Your task to perform on an android device: check the backup settings in the google photos Image 0: 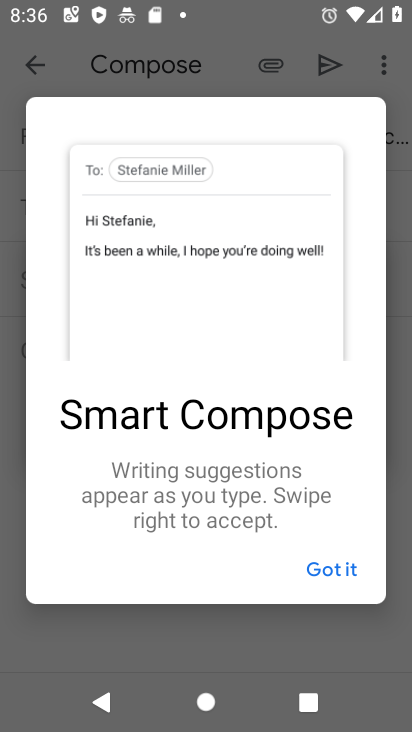
Step 0: press home button
Your task to perform on an android device: check the backup settings in the google photos Image 1: 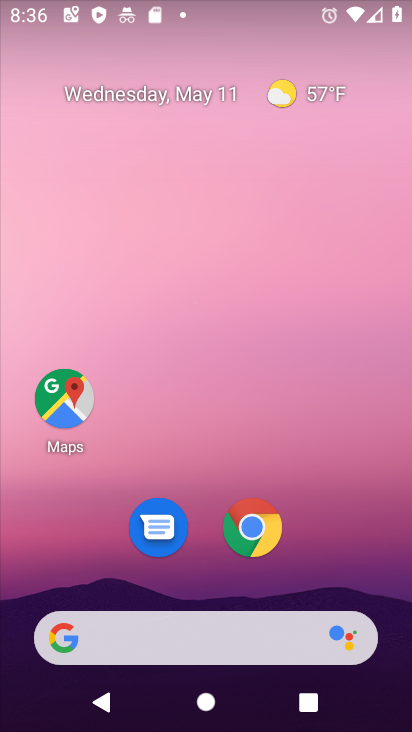
Step 1: drag from (361, 609) to (366, 11)
Your task to perform on an android device: check the backup settings in the google photos Image 2: 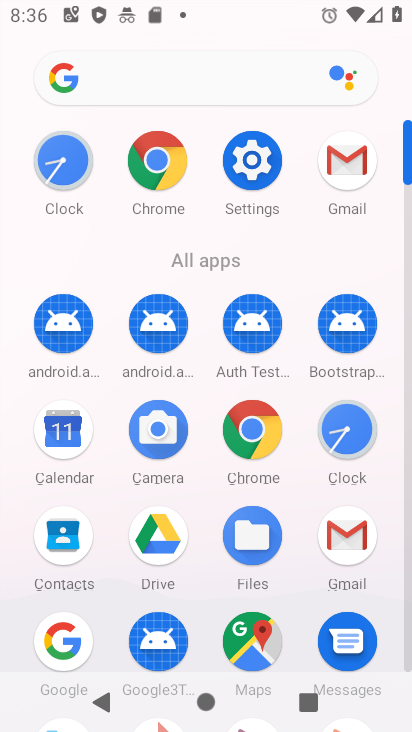
Step 2: drag from (408, 512) to (409, 419)
Your task to perform on an android device: check the backup settings in the google photos Image 3: 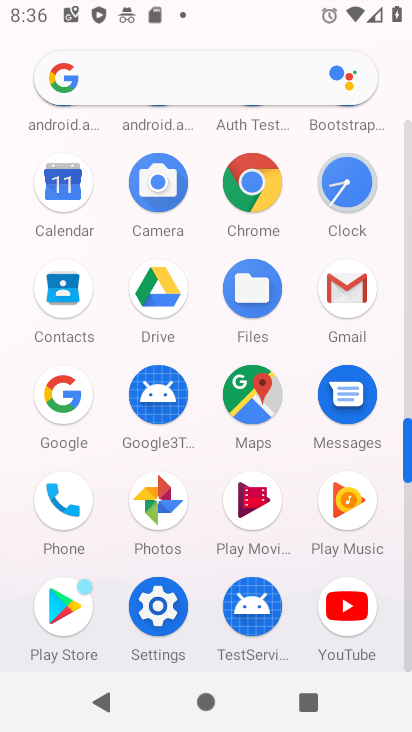
Step 3: click (172, 507)
Your task to perform on an android device: check the backup settings in the google photos Image 4: 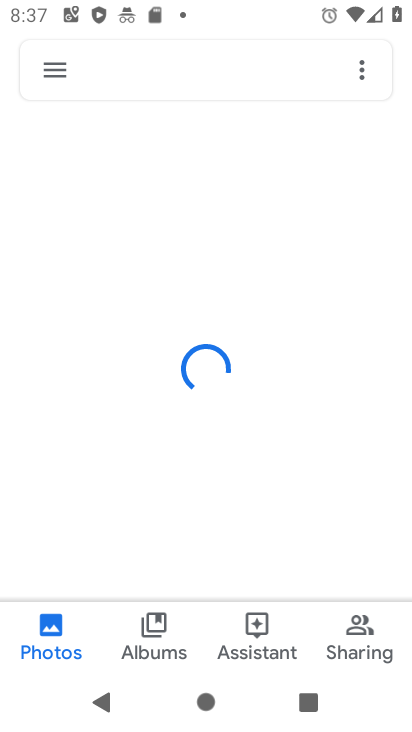
Step 4: click (54, 59)
Your task to perform on an android device: check the backup settings in the google photos Image 5: 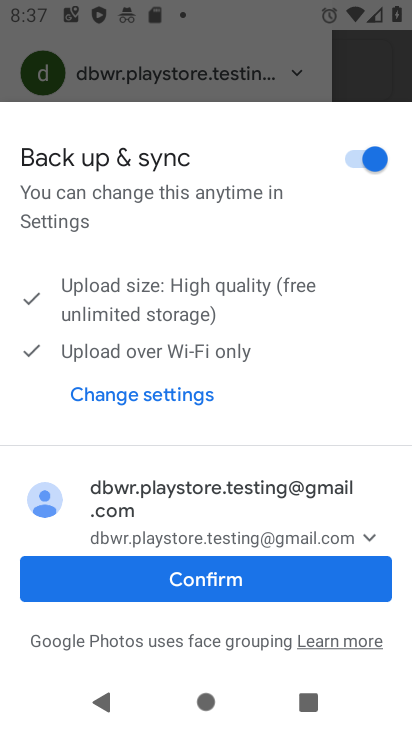
Step 5: click (222, 596)
Your task to perform on an android device: check the backup settings in the google photos Image 6: 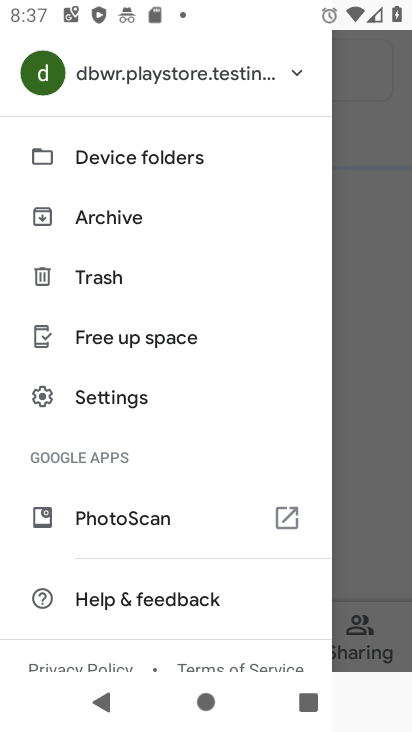
Step 6: click (93, 403)
Your task to perform on an android device: check the backup settings in the google photos Image 7: 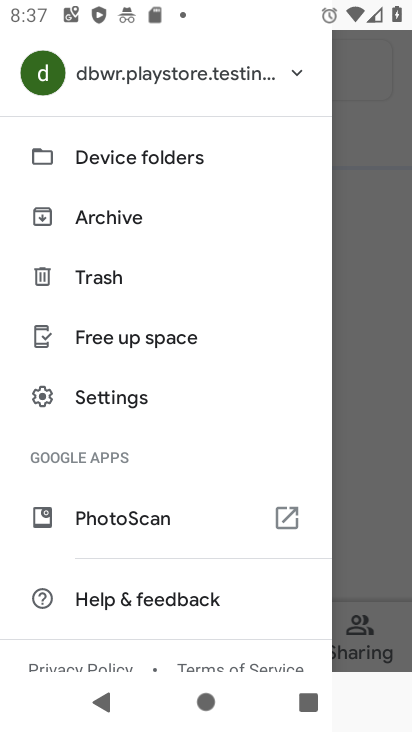
Step 7: click (139, 405)
Your task to perform on an android device: check the backup settings in the google photos Image 8: 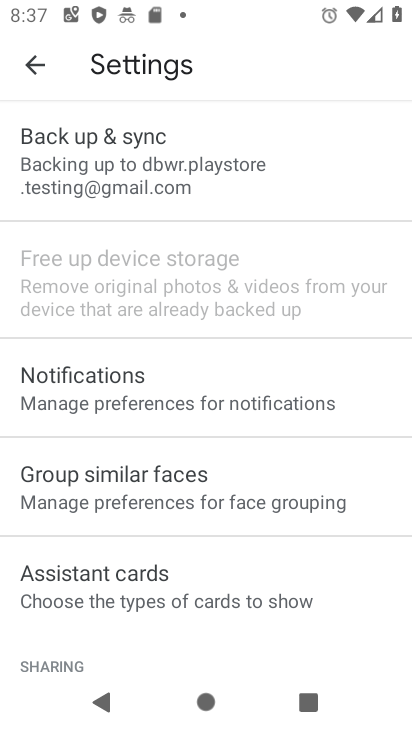
Step 8: click (188, 191)
Your task to perform on an android device: check the backup settings in the google photos Image 9: 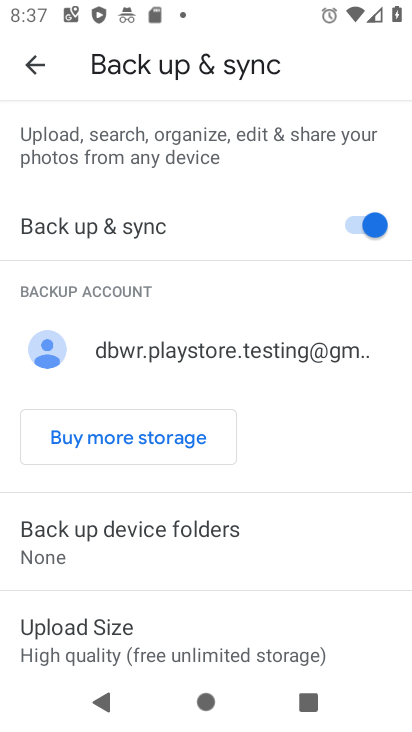
Step 9: task complete